Your task to perform on an android device: turn on location history Image 0: 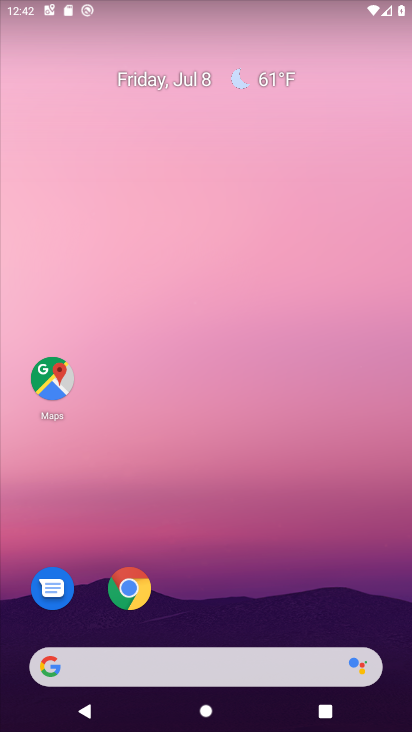
Step 0: press home button
Your task to perform on an android device: turn on location history Image 1: 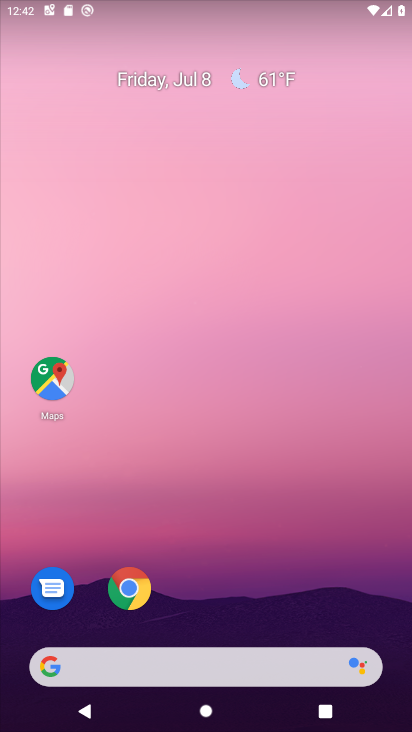
Step 1: drag from (220, 437) to (224, 62)
Your task to perform on an android device: turn on location history Image 2: 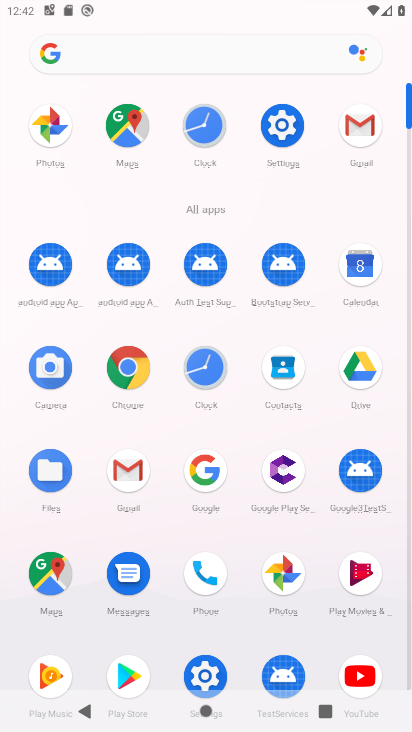
Step 2: click (364, 127)
Your task to perform on an android device: turn on location history Image 3: 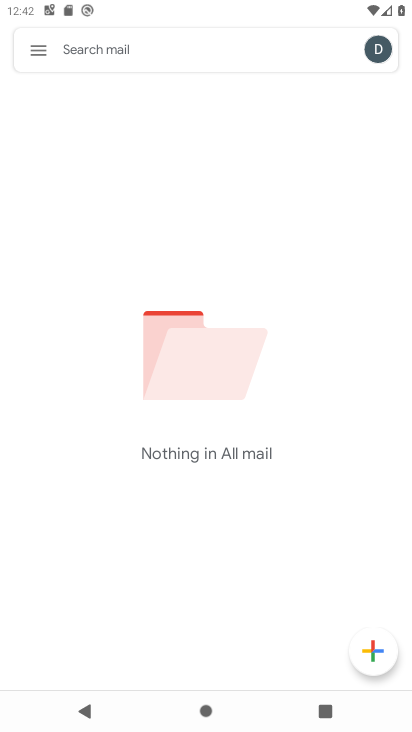
Step 3: click (39, 49)
Your task to perform on an android device: turn on location history Image 4: 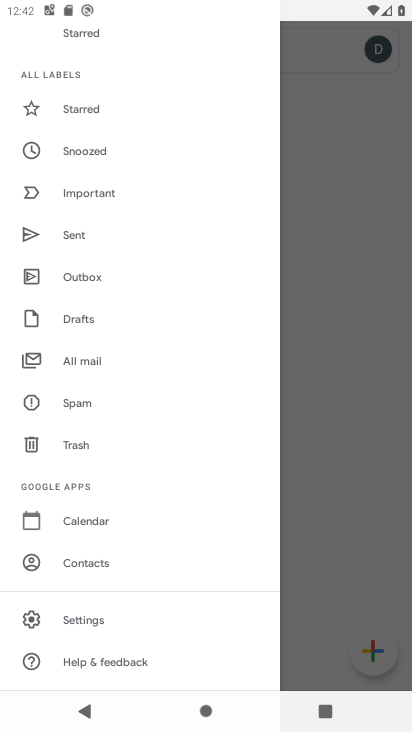
Step 4: press back button
Your task to perform on an android device: turn on location history Image 5: 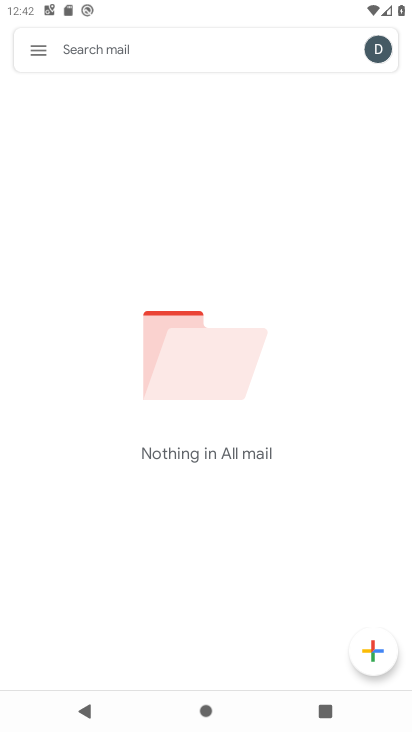
Step 5: press back button
Your task to perform on an android device: turn on location history Image 6: 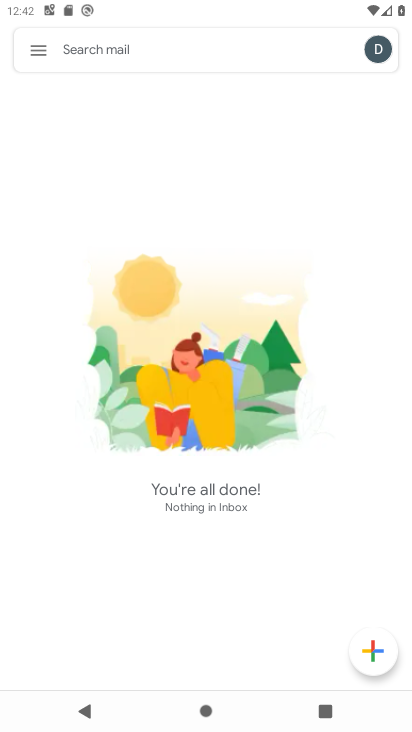
Step 6: press back button
Your task to perform on an android device: turn on location history Image 7: 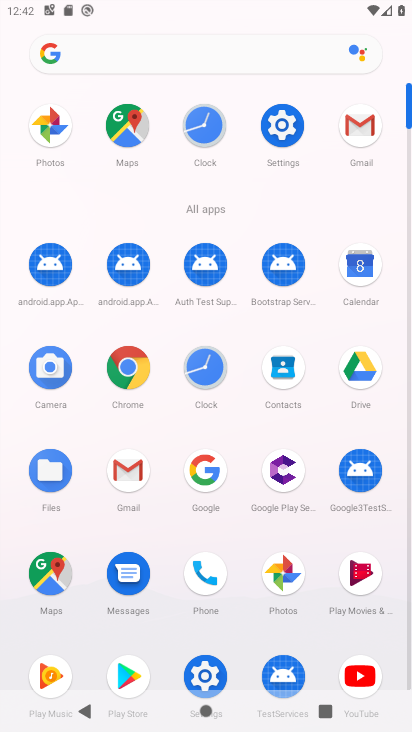
Step 7: click (288, 122)
Your task to perform on an android device: turn on location history Image 8: 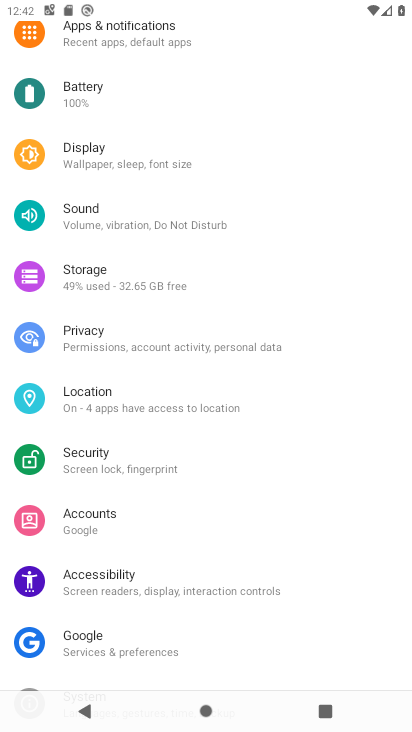
Step 8: click (97, 403)
Your task to perform on an android device: turn on location history Image 9: 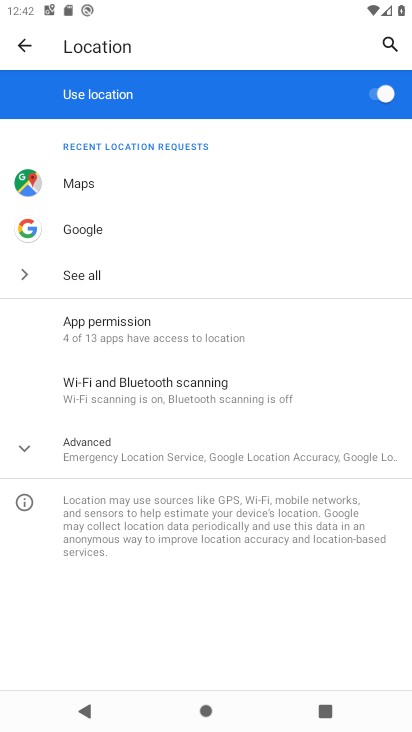
Step 9: click (132, 442)
Your task to perform on an android device: turn on location history Image 10: 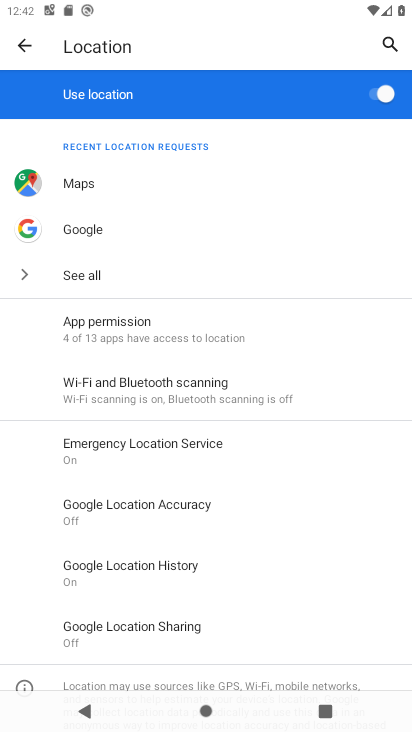
Step 10: click (125, 571)
Your task to perform on an android device: turn on location history Image 11: 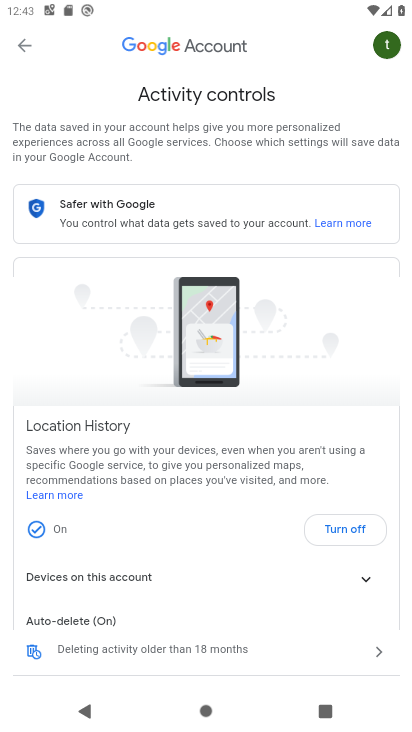
Step 11: click (359, 529)
Your task to perform on an android device: turn on location history Image 12: 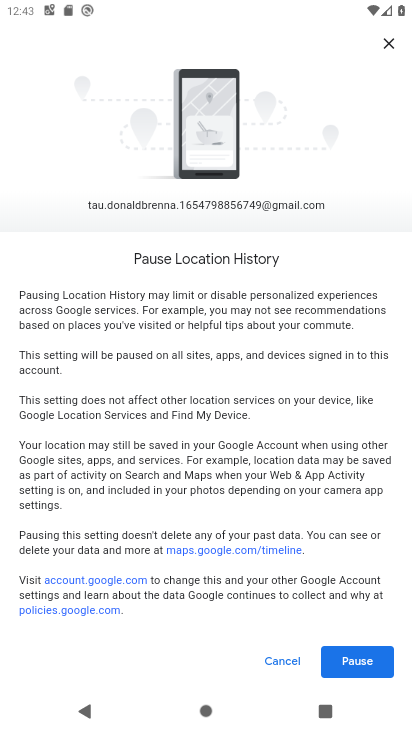
Step 12: drag from (351, 553) to (407, 604)
Your task to perform on an android device: turn on location history Image 13: 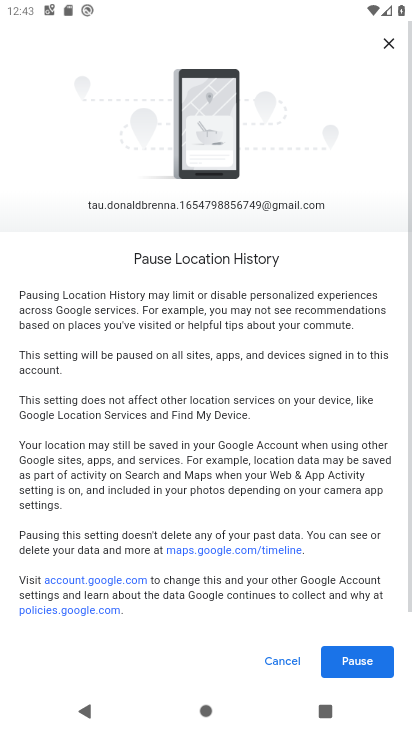
Step 13: click (282, 665)
Your task to perform on an android device: turn on location history Image 14: 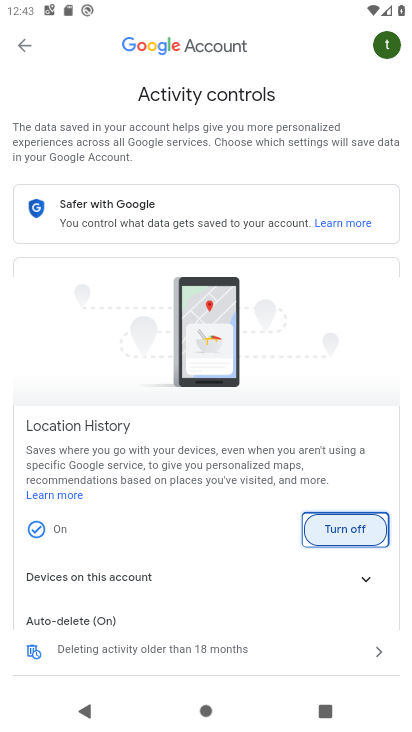
Step 14: click (57, 532)
Your task to perform on an android device: turn on location history Image 15: 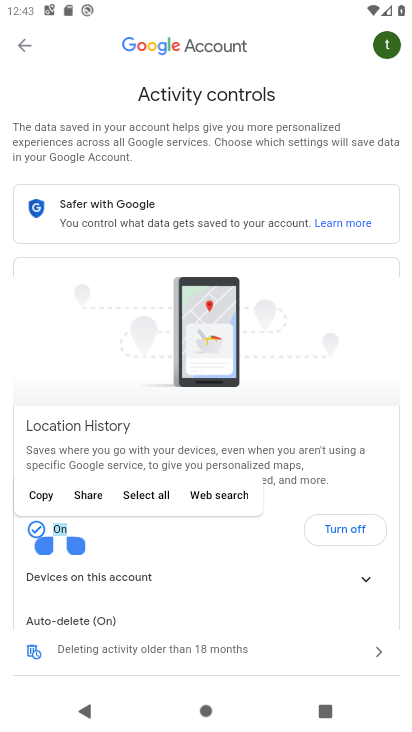
Step 15: task complete